Your task to perform on an android device: toggle improve location accuracy Image 0: 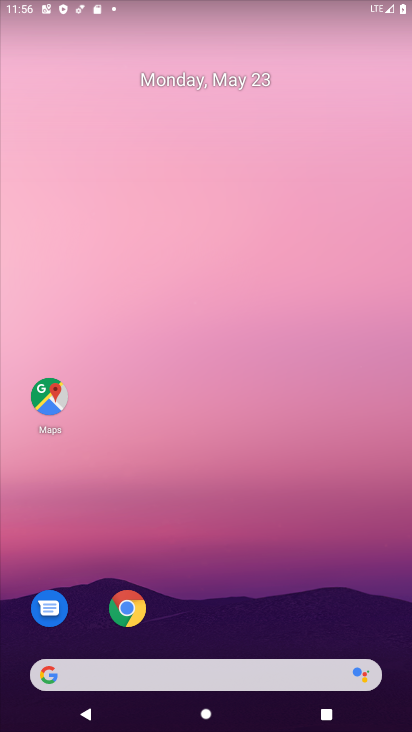
Step 0: press home button
Your task to perform on an android device: toggle improve location accuracy Image 1: 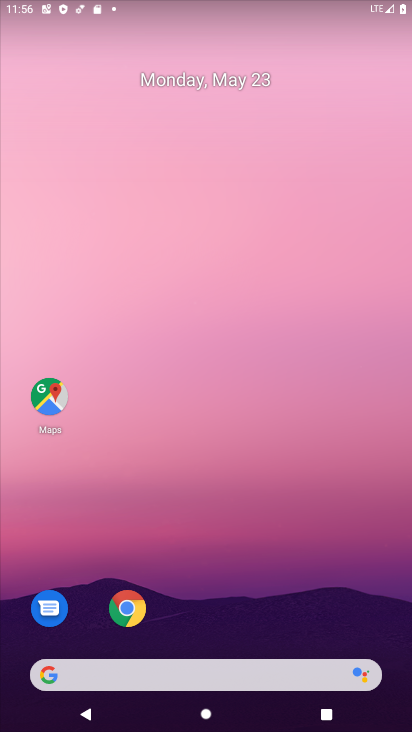
Step 1: drag from (211, 638) to (214, 60)
Your task to perform on an android device: toggle improve location accuracy Image 2: 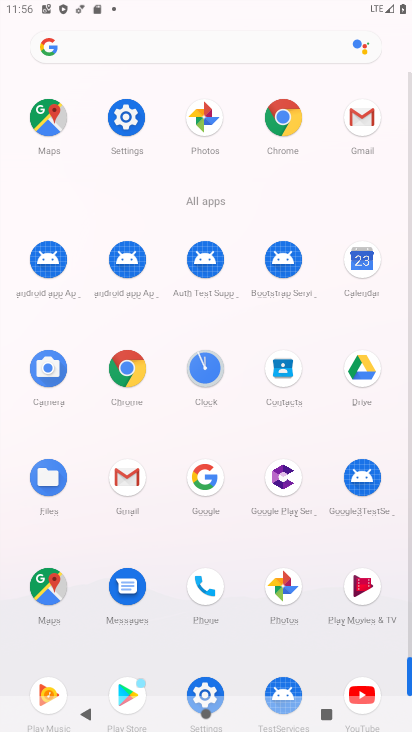
Step 2: click (122, 109)
Your task to perform on an android device: toggle improve location accuracy Image 3: 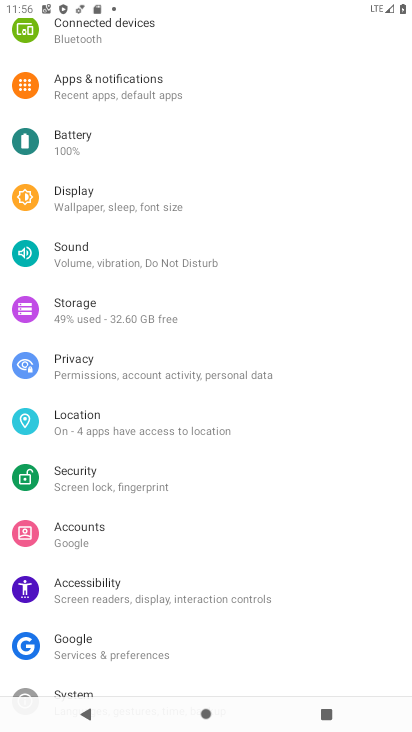
Step 3: click (110, 411)
Your task to perform on an android device: toggle improve location accuracy Image 4: 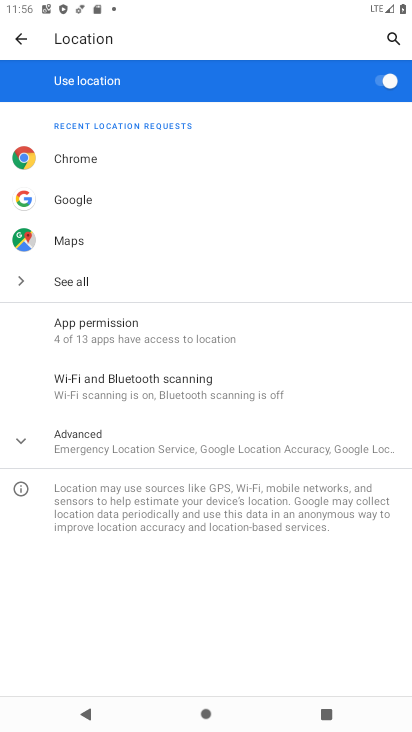
Step 4: click (21, 433)
Your task to perform on an android device: toggle improve location accuracy Image 5: 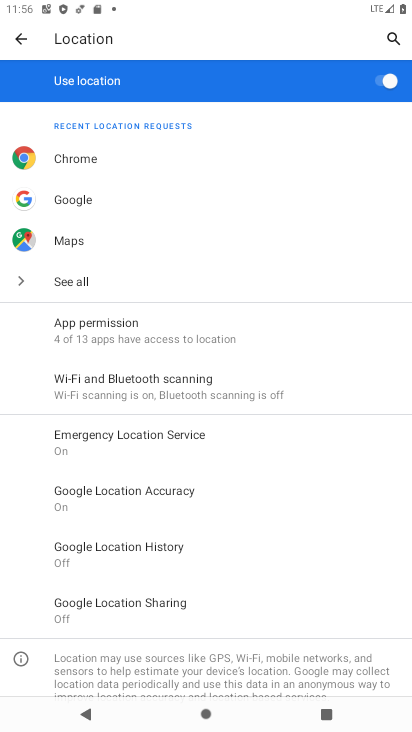
Step 5: click (121, 498)
Your task to perform on an android device: toggle improve location accuracy Image 6: 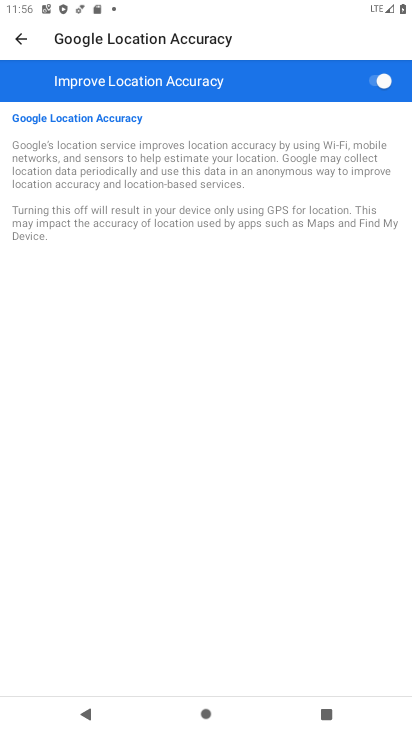
Step 6: task complete